Your task to perform on an android device: Go to privacy settings Image 0: 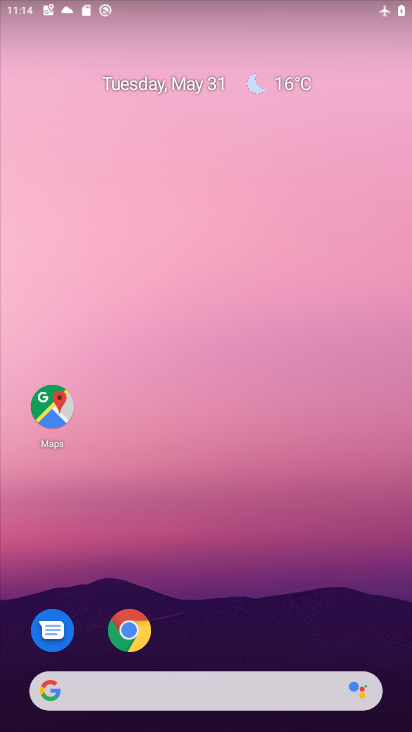
Step 0: drag from (250, 531) to (279, 156)
Your task to perform on an android device: Go to privacy settings Image 1: 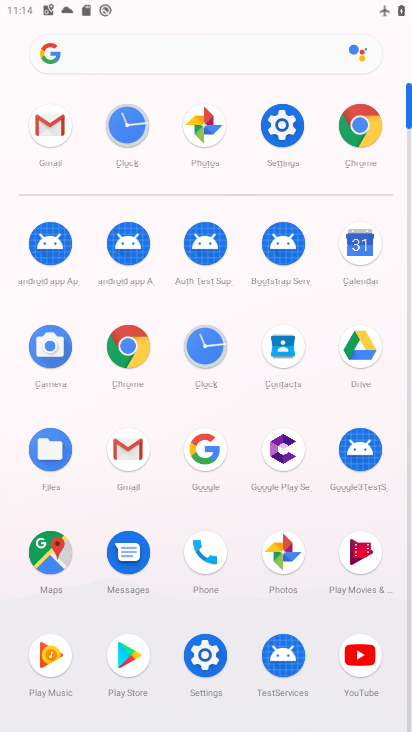
Step 1: click (285, 131)
Your task to perform on an android device: Go to privacy settings Image 2: 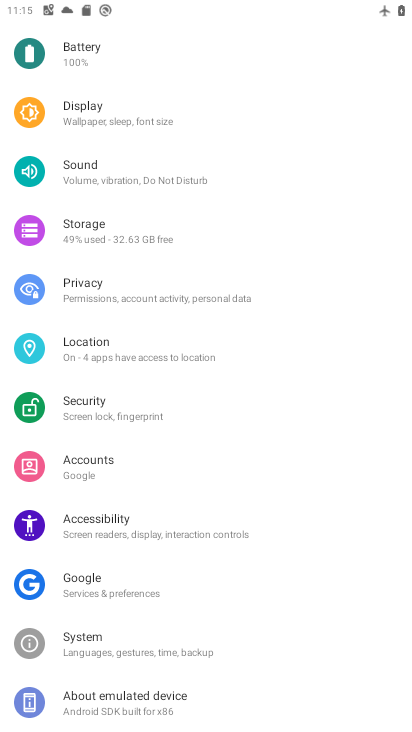
Step 2: drag from (152, 653) to (179, 156)
Your task to perform on an android device: Go to privacy settings Image 3: 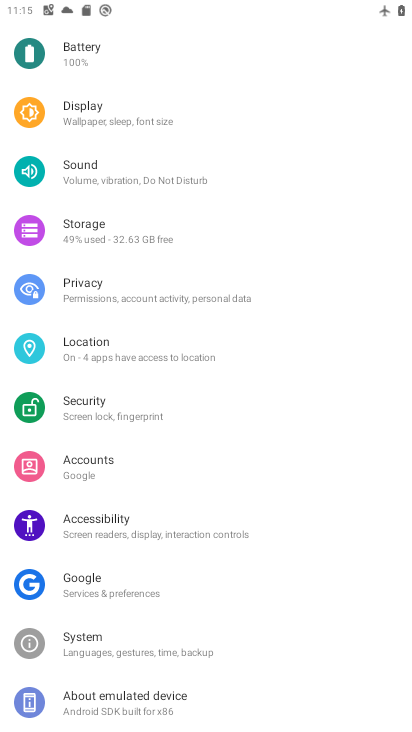
Step 3: drag from (142, 286) to (170, 620)
Your task to perform on an android device: Go to privacy settings Image 4: 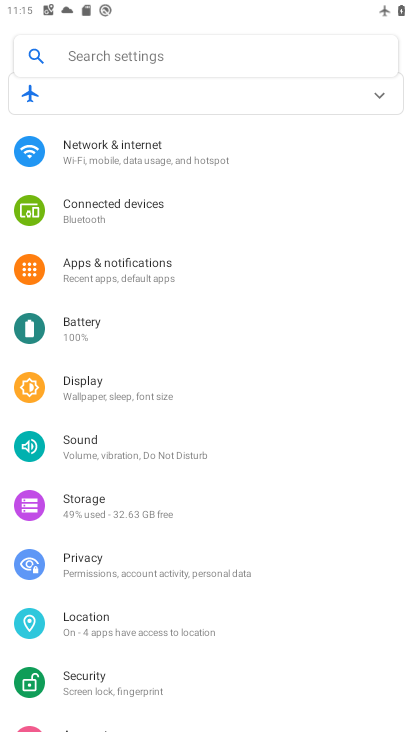
Step 4: drag from (163, 584) to (207, 259)
Your task to perform on an android device: Go to privacy settings Image 5: 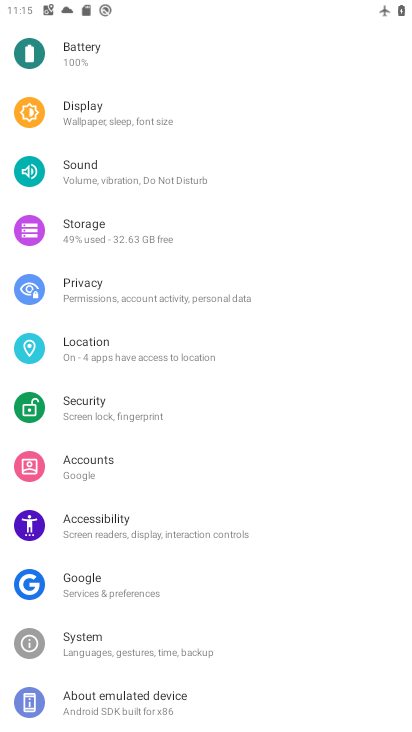
Step 5: click (77, 290)
Your task to perform on an android device: Go to privacy settings Image 6: 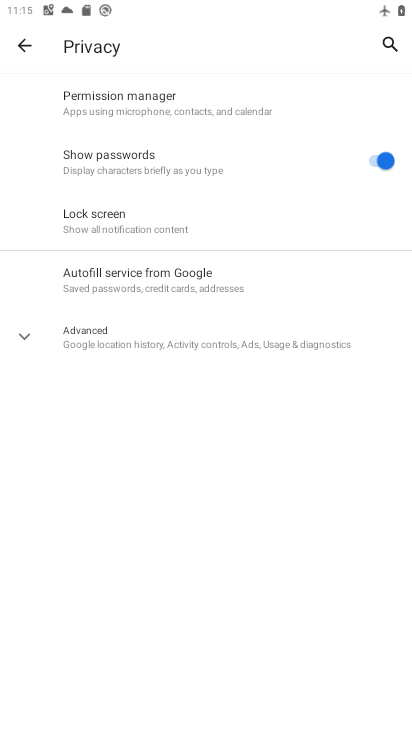
Step 6: task complete